Your task to perform on an android device: What's the weather going to be tomorrow? Image 0: 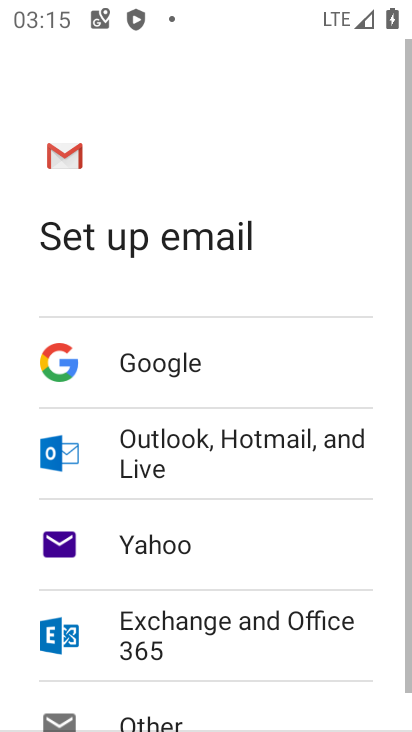
Step 0: press home button
Your task to perform on an android device: What's the weather going to be tomorrow? Image 1: 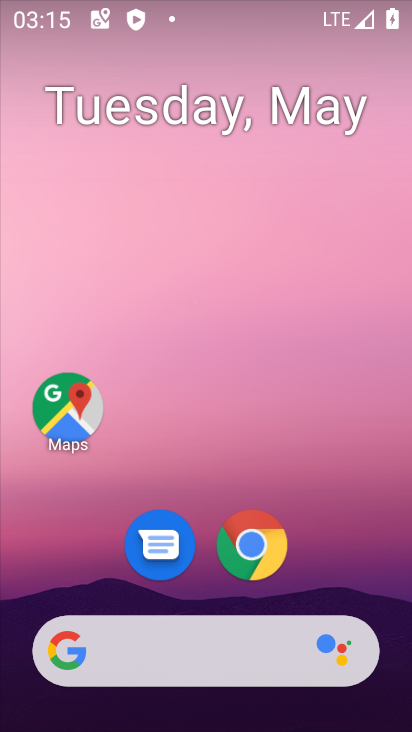
Step 1: click (166, 649)
Your task to perform on an android device: What's the weather going to be tomorrow? Image 2: 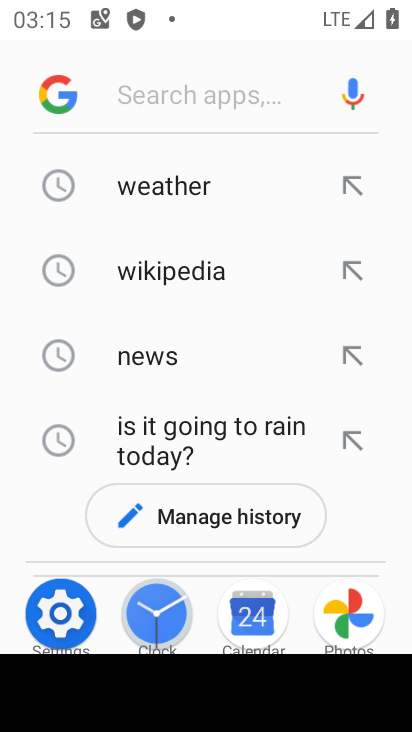
Step 2: click (159, 190)
Your task to perform on an android device: What's the weather going to be tomorrow? Image 3: 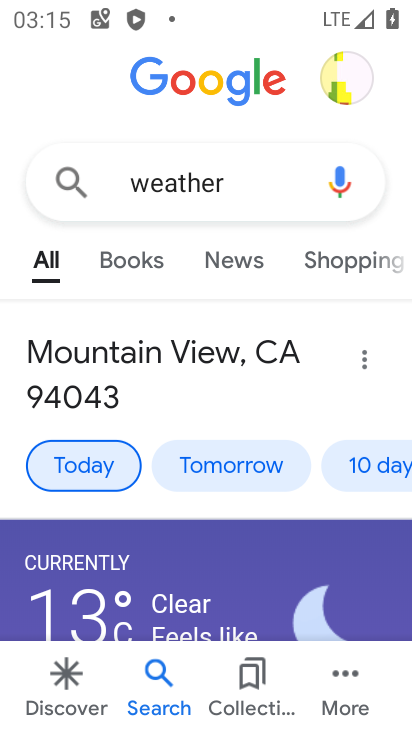
Step 3: click (233, 462)
Your task to perform on an android device: What's the weather going to be tomorrow? Image 4: 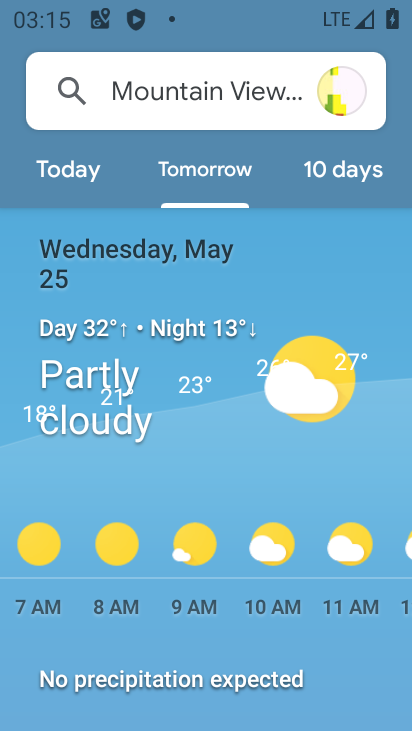
Step 4: task complete